Your task to perform on an android device: turn off translation in the chrome app Image 0: 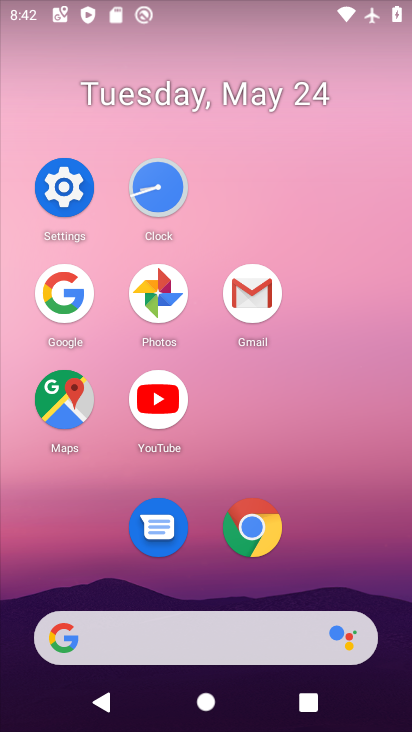
Step 0: click (247, 526)
Your task to perform on an android device: turn off translation in the chrome app Image 1: 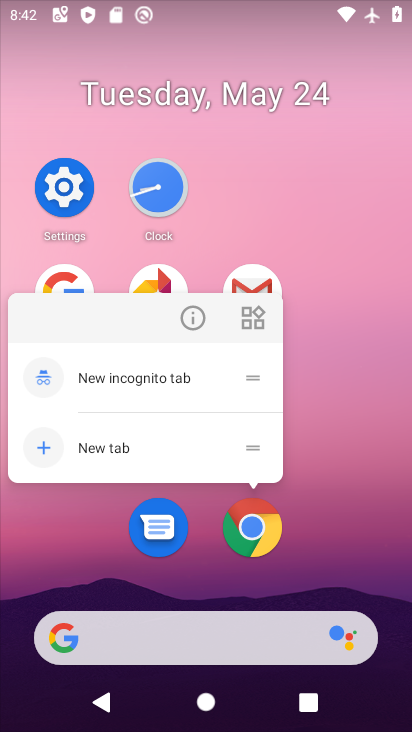
Step 1: click (254, 542)
Your task to perform on an android device: turn off translation in the chrome app Image 2: 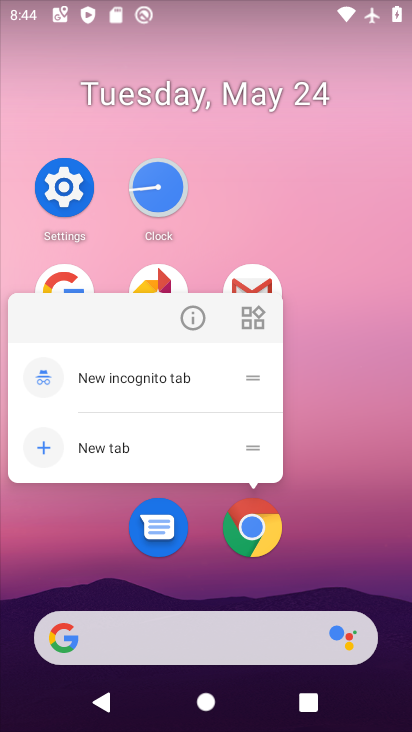
Step 2: click (244, 554)
Your task to perform on an android device: turn off translation in the chrome app Image 3: 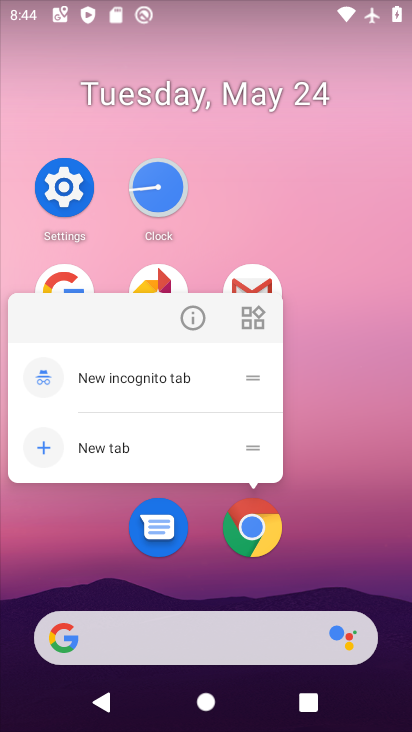
Step 3: click (251, 554)
Your task to perform on an android device: turn off translation in the chrome app Image 4: 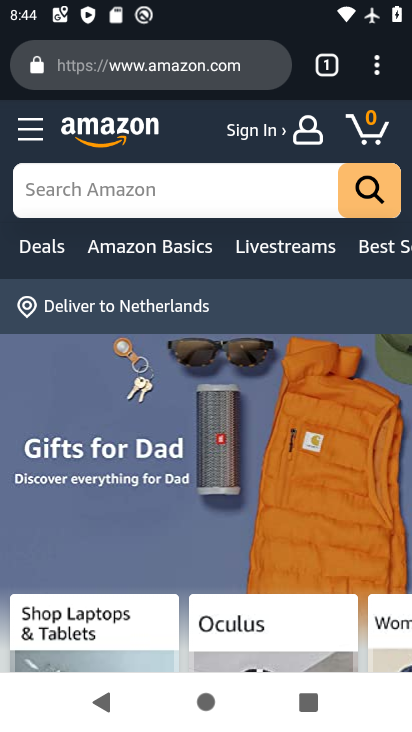
Step 4: click (382, 61)
Your task to perform on an android device: turn off translation in the chrome app Image 5: 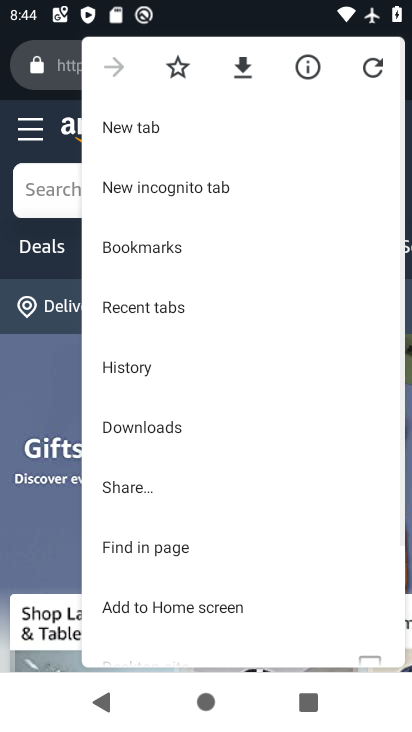
Step 5: drag from (146, 555) to (232, 232)
Your task to perform on an android device: turn off translation in the chrome app Image 6: 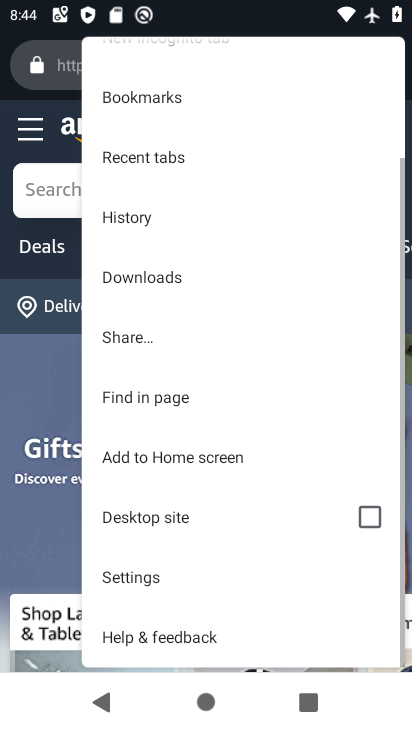
Step 6: click (196, 583)
Your task to perform on an android device: turn off translation in the chrome app Image 7: 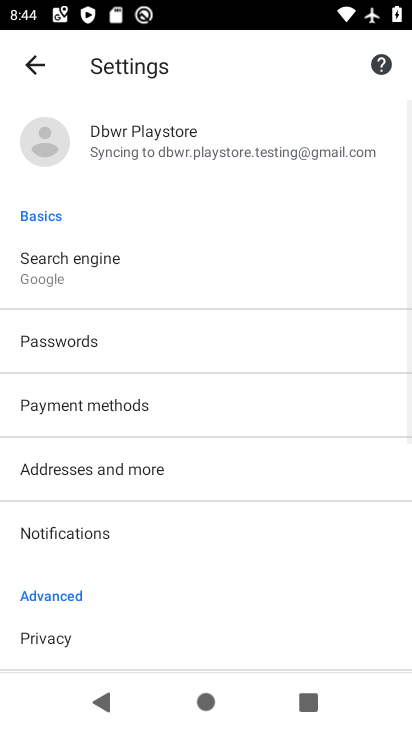
Step 7: drag from (196, 583) to (157, 274)
Your task to perform on an android device: turn off translation in the chrome app Image 8: 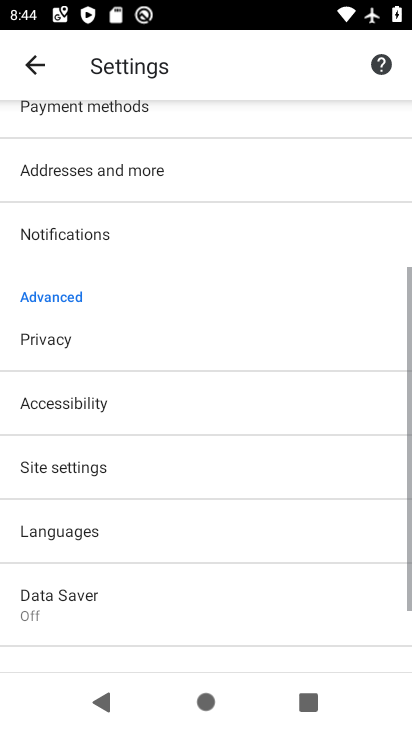
Step 8: drag from (159, 592) to (168, 304)
Your task to perform on an android device: turn off translation in the chrome app Image 9: 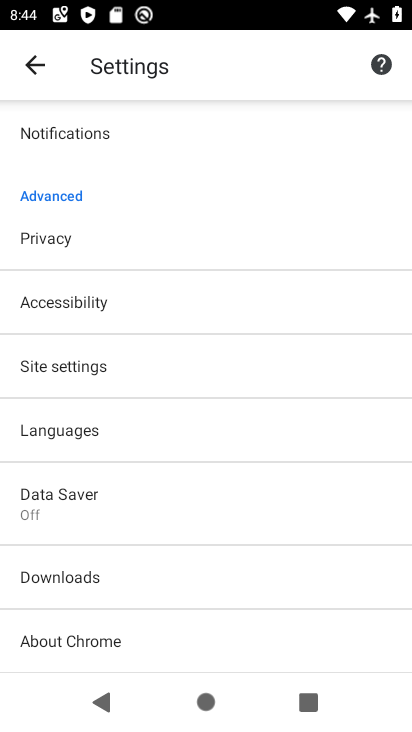
Step 9: drag from (238, 552) to (300, 315)
Your task to perform on an android device: turn off translation in the chrome app Image 10: 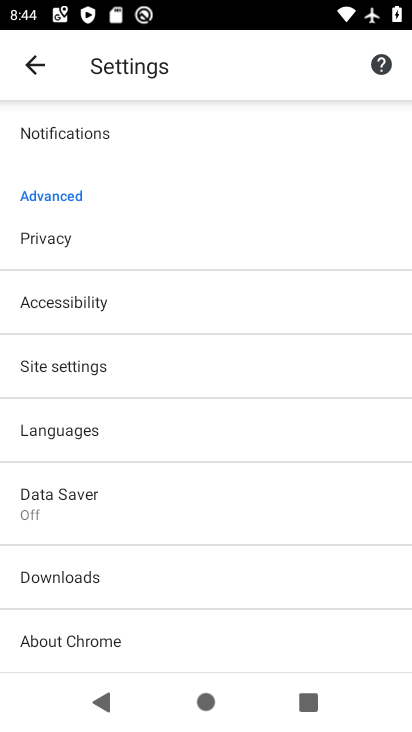
Step 10: click (251, 414)
Your task to perform on an android device: turn off translation in the chrome app Image 11: 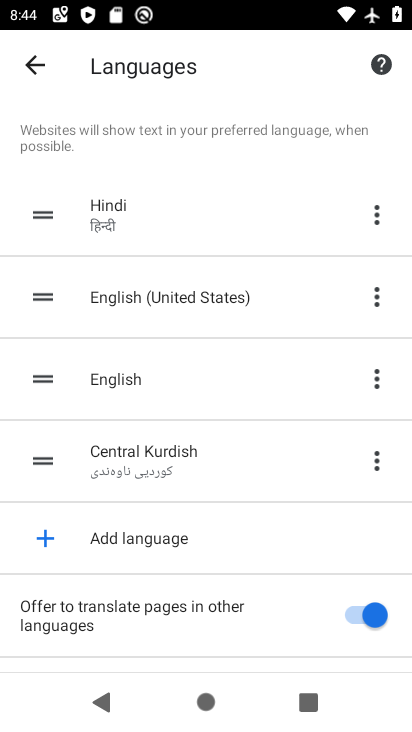
Step 11: click (369, 604)
Your task to perform on an android device: turn off translation in the chrome app Image 12: 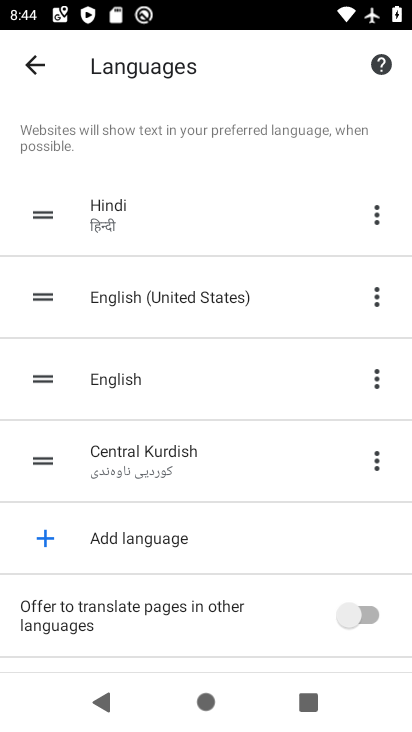
Step 12: task complete